Your task to perform on an android device: Open battery settings Image 0: 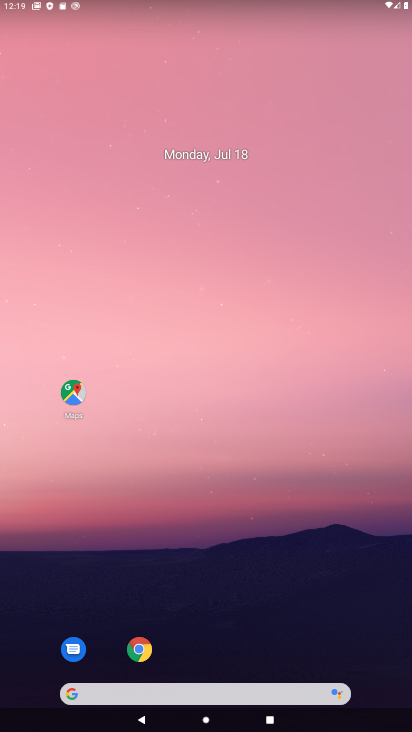
Step 0: drag from (371, 660) to (316, 91)
Your task to perform on an android device: Open battery settings Image 1: 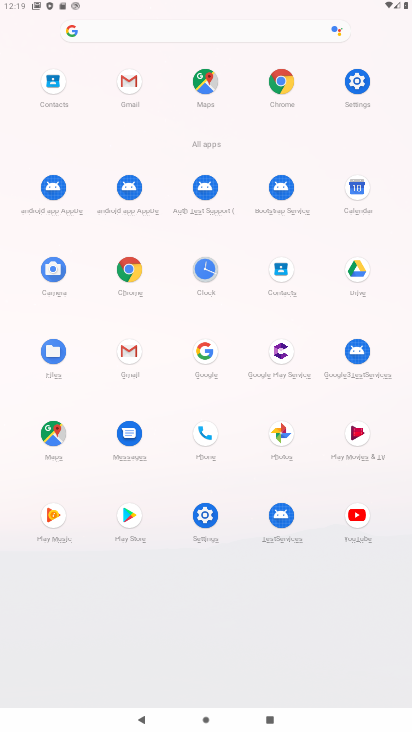
Step 1: click (204, 516)
Your task to perform on an android device: Open battery settings Image 2: 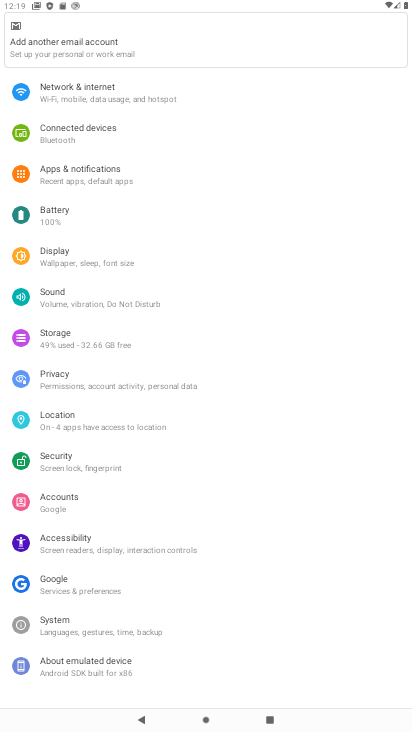
Step 2: click (51, 210)
Your task to perform on an android device: Open battery settings Image 3: 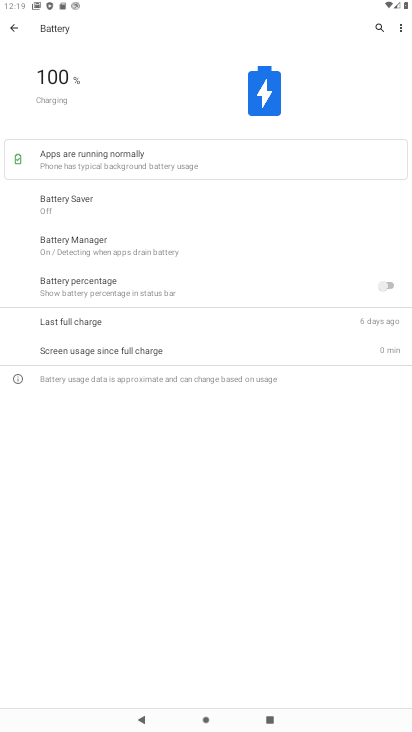
Step 3: task complete